Your task to perform on an android device: Search for Mexican restaurants on Maps Image 0: 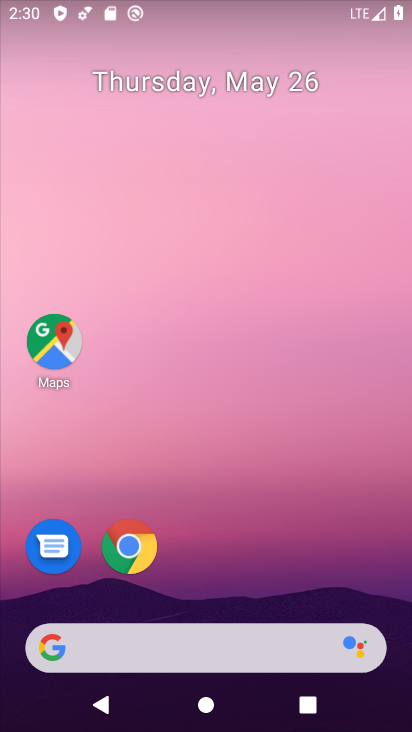
Step 0: click (55, 344)
Your task to perform on an android device: Search for Mexican restaurants on Maps Image 1: 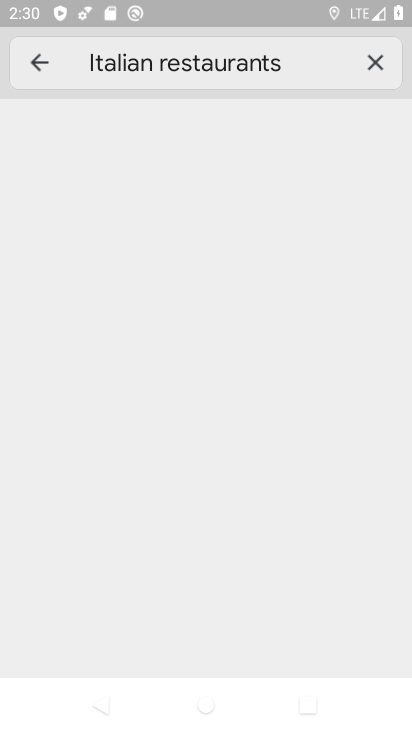
Step 1: click (376, 65)
Your task to perform on an android device: Search for Mexican restaurants on Maps Image 2: 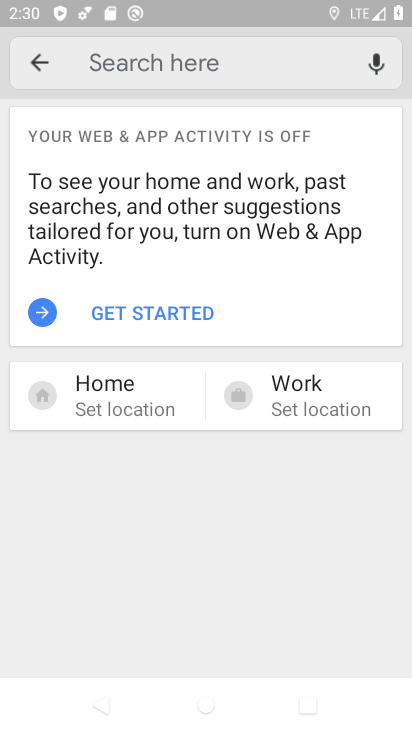
Step 2: click (167, 306)
Your task to perform on an android device: Search for Mexican restaurants on Maps Image 3: 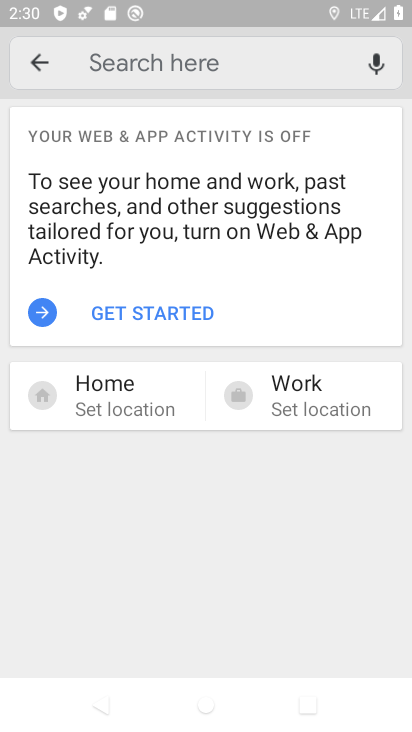
Step 3: click (179, 310)
Your task to perform on an android device: Search for Mexican restaurants on Maps Image 4: 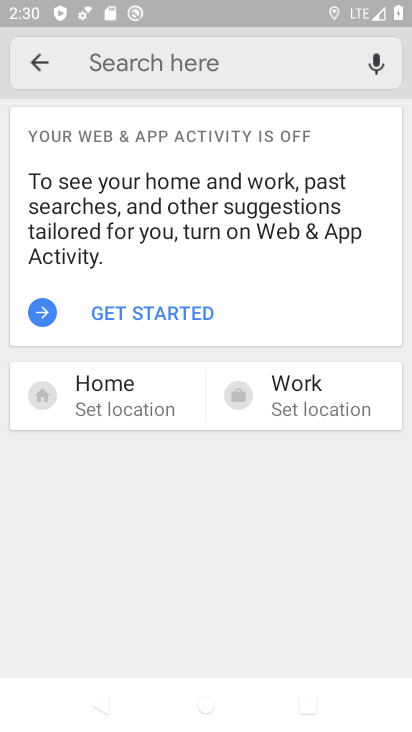
Step 4: click (37, 56)
Your task to perform on an android device: Search for Mexican restaurants on Maps Image 5: 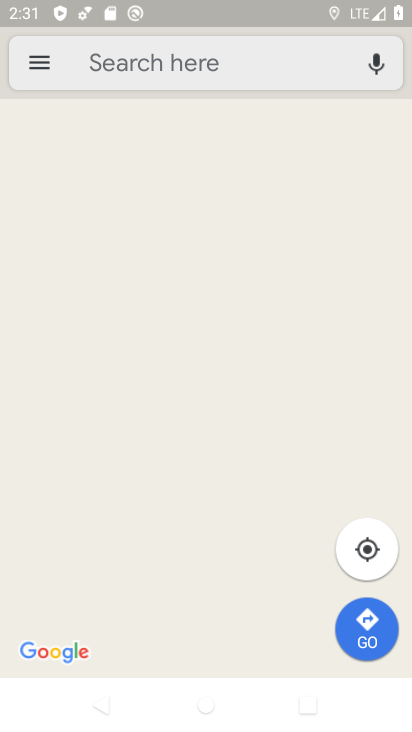
Step 5: click (155, 61)
Your task to perform on an android device: Search for Mexican restaurants on Maps Image 6: 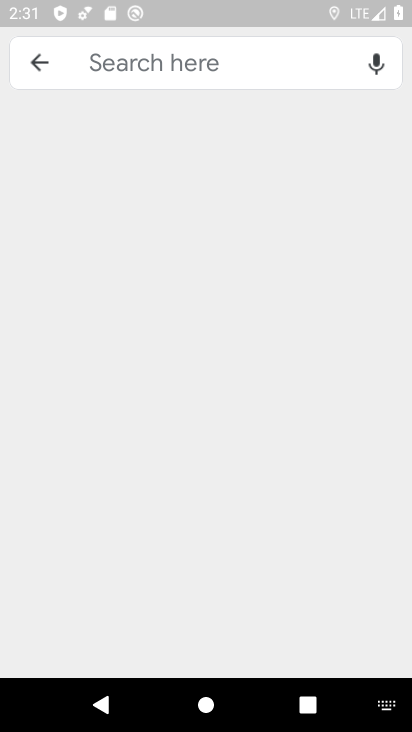
Step 6: type "mexican restaurants"
Your task to perform on an android device: Search for Mexican restaurants on Maps Image 7: 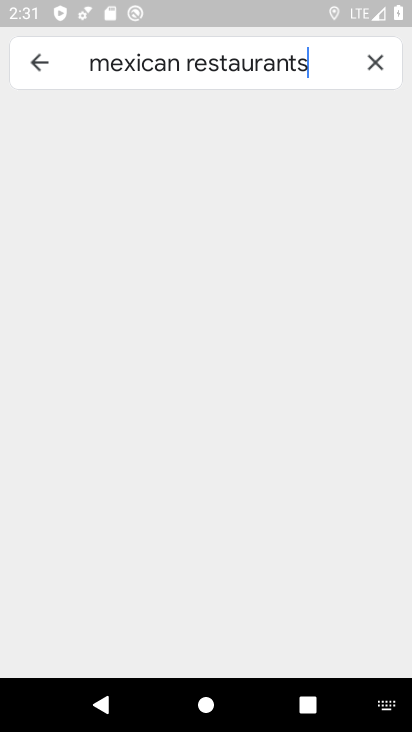
Step 7: task complete